Your task to perform on an android device: Go to Android settings Image 0: 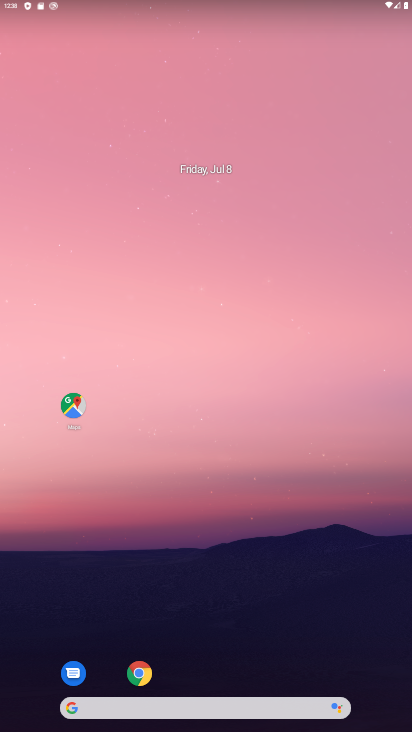
Step 0: drag from (208, 668) to (303, 74)
Your task to perform on an android device: Go to Android settings Image 1: 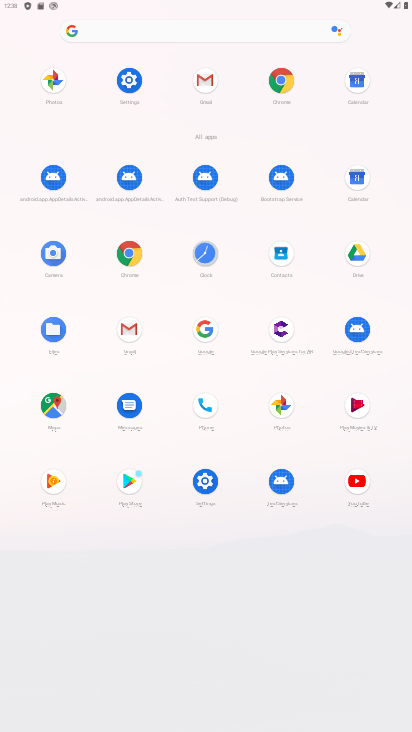
Step 1: click (130, 75)
Your task to perform on an android device: Go to Android settings Image 2: 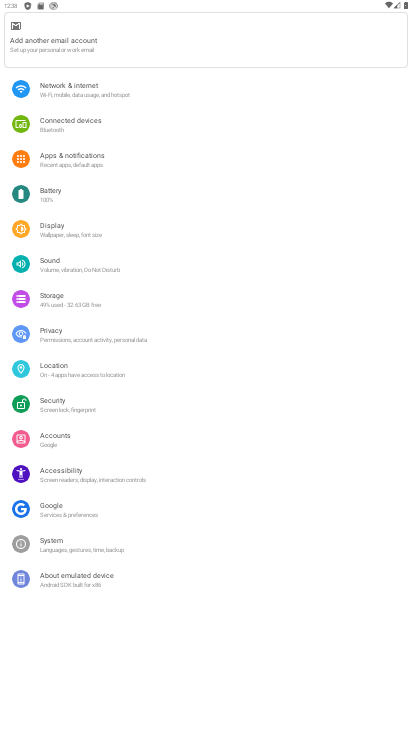
Step 2: click (91, 583)
Your task to perform on an android device: Go to Android settings Image 3: 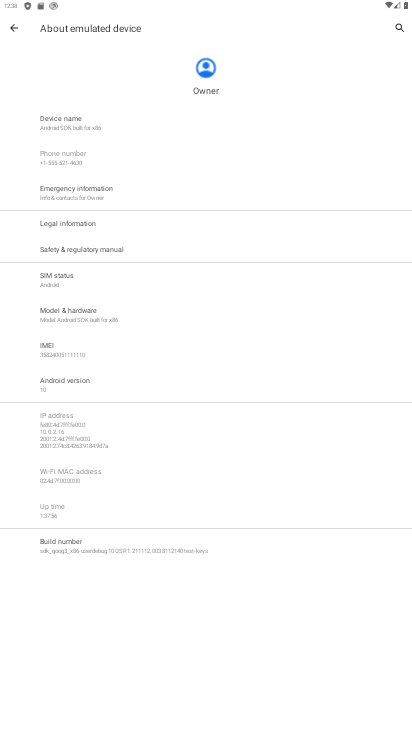
Step 3: task complete